Your task to perform on an android device: When is my next appointment? Image 0: 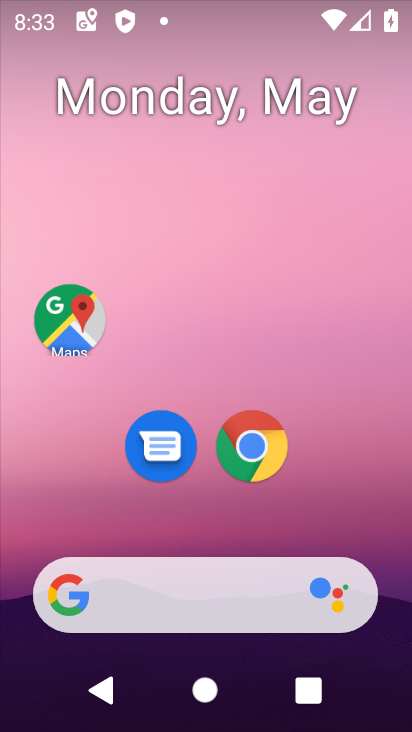
Step 0: click (248, 436)
Your task to perform on an android device: When is my next appointment? Image 1: 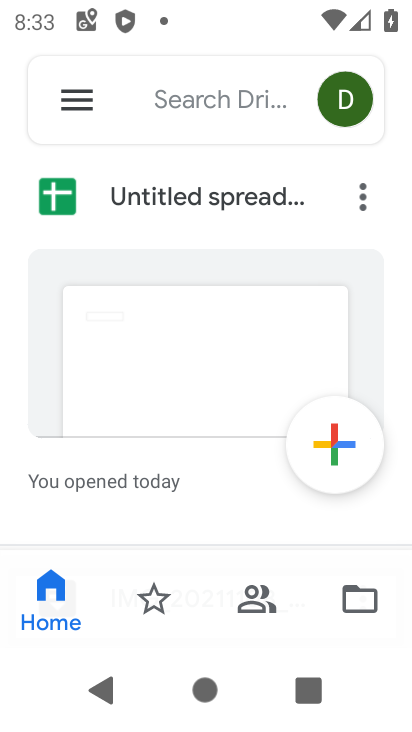
Step 1: press home button
Your task to perform on an android device: When is my next appointment? Image 2: 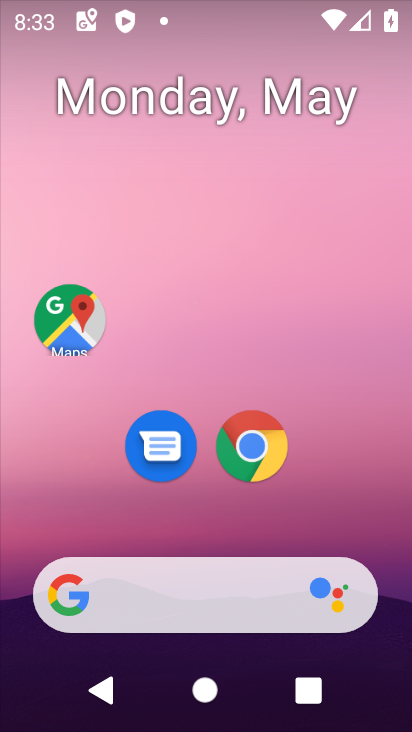
Step 2: drag from (201, 529) to (200, 23)
Your task to perform on an android device: When is my next appointment? Image 3: 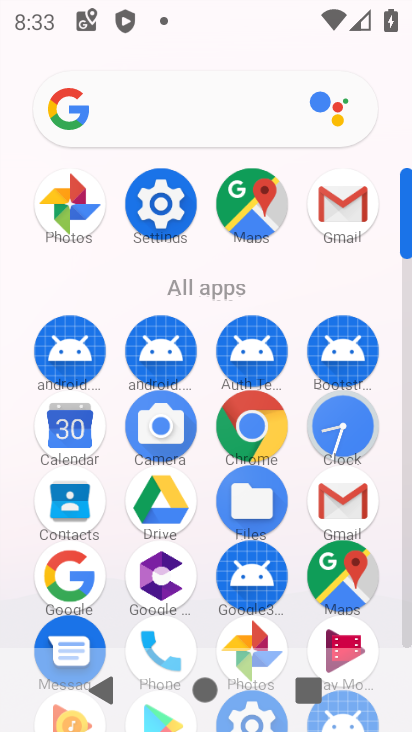
Step 3: click (67, 423)
Your task to perform on an android device: When is my next appointment? Image 4: 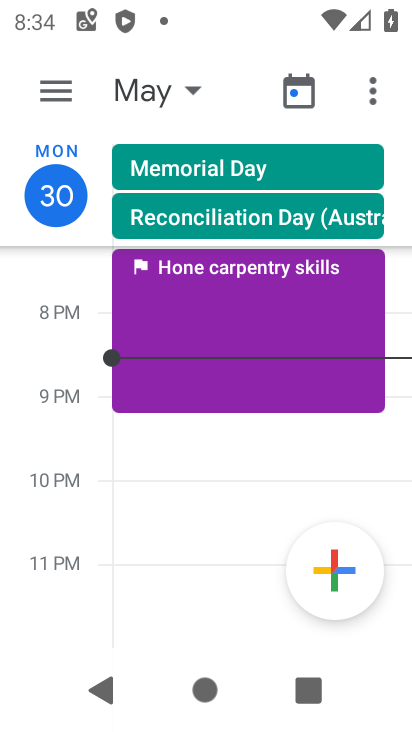
Step 4: click (82, 227)
Your task to perform on an android device: When is my next appointment? Image 5: 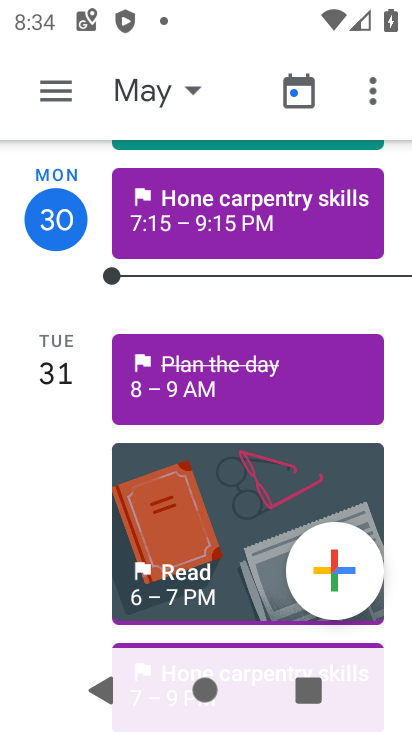
Step 5: task complete